Your task to perform on an android device: Toggle the flashlight Image 0: 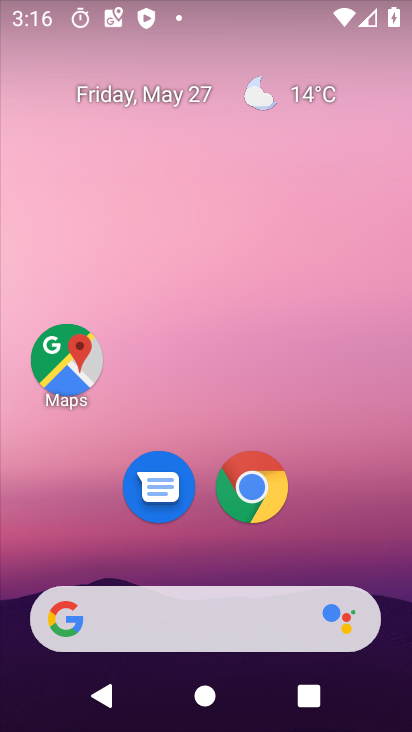
Step 0: drag from (327, 502) to (157, 86)
Your task to perform on an android device: Toggle the flashlight Image 1: 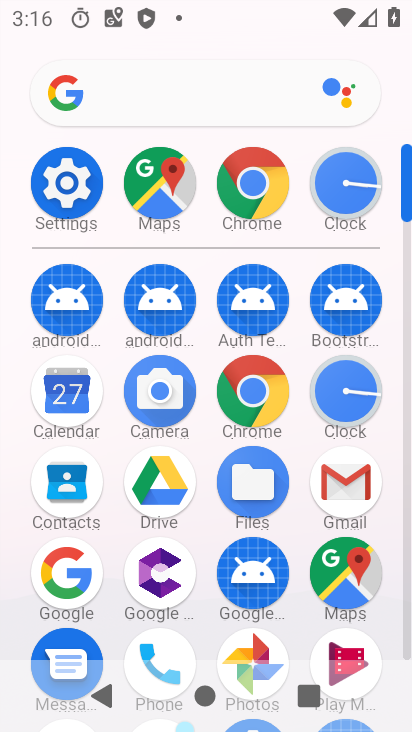
Step 1: click (75, 185)
Your task to perform on an android device: Toggle the flashlight Image 2: 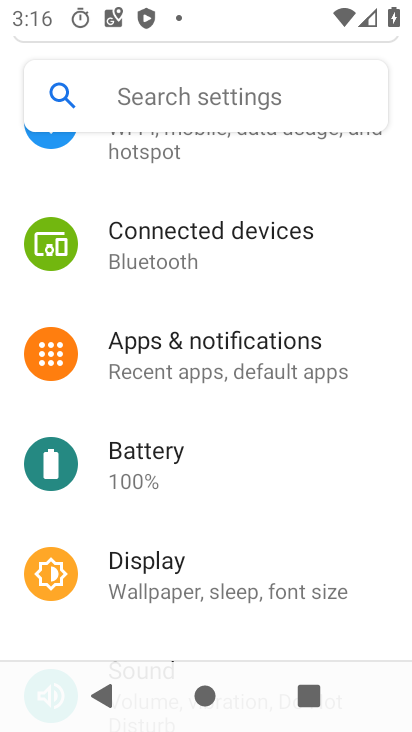
Step 2: drag from (128, 214) to (375, 606)
Your task to perform on an android device: Toggle the flashlight Image 3: 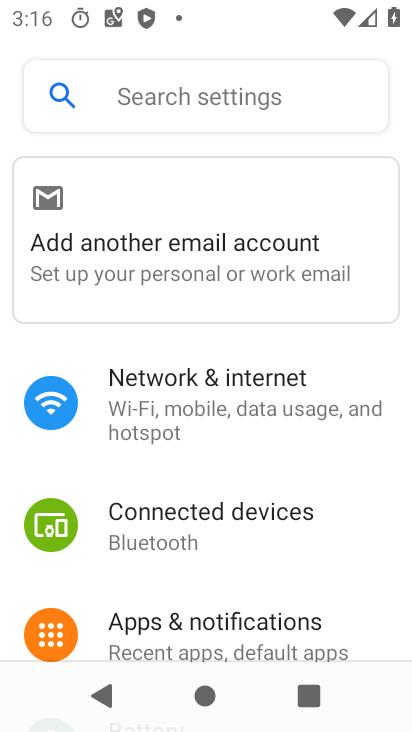
Step 3: drag from (278, 553) to (167, 230)
Your task to perform on an android device: Toggle the flashlight Image 4: 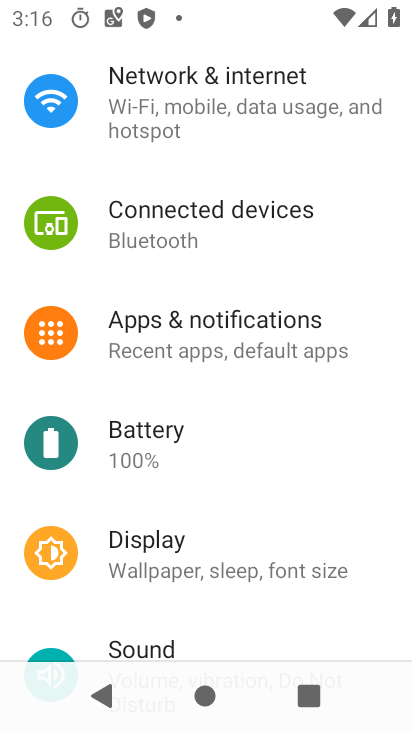
Step 4: click (169, 553)
Your task to perform on an android device: Toggle the flashlight Image 5: 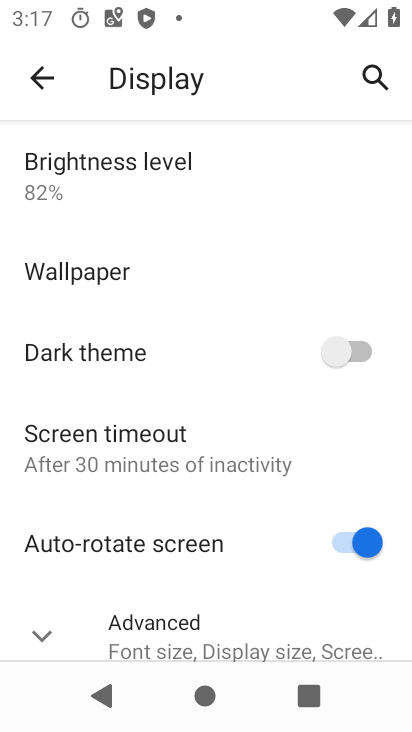
Step 5: task complete